Your task to perform on an android device: Do I have any events tomorrow? Image 0: 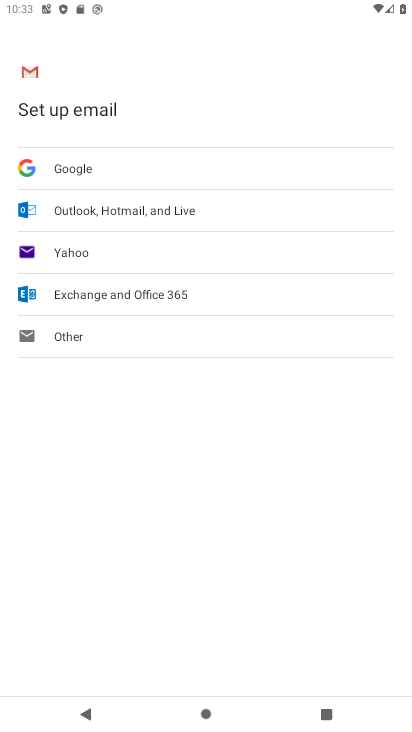
Step 0: press home button
Your task to perform on an android device: Do I have any events tomorrow? Image 1: 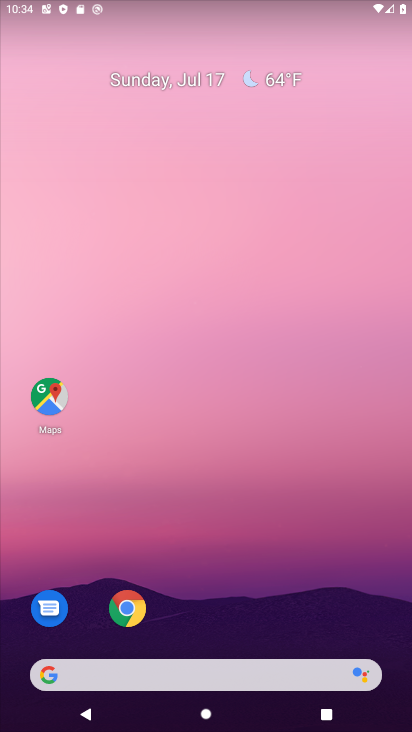
Step 1: drag from (363, 638) to (194, 10)
Your task to perform on an android device: Do I have any events tomorrow? Image 2: 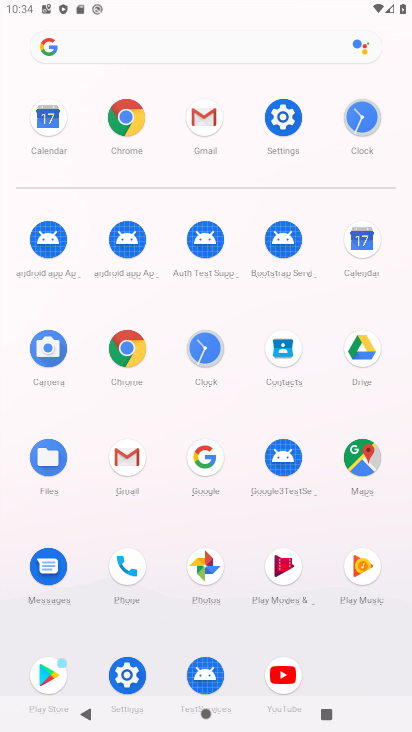
Step 2: click (352, 244)
Your task to perform on an android device: Do I have any events tomorrow? Image 3: 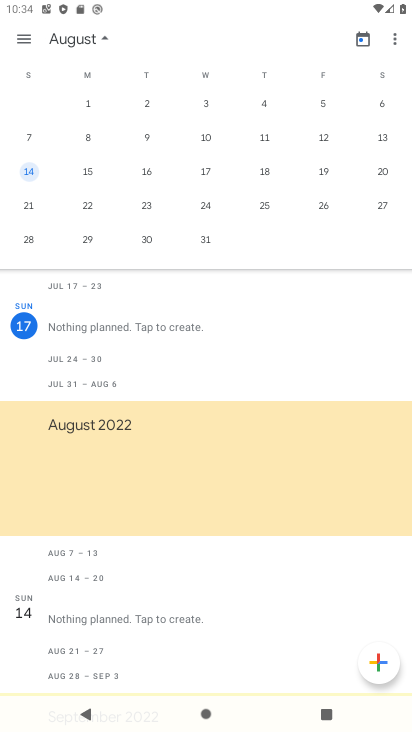
Step 3: task complete